Your task to perform on an android device: find snoozed emails in the gmail app Image 0: 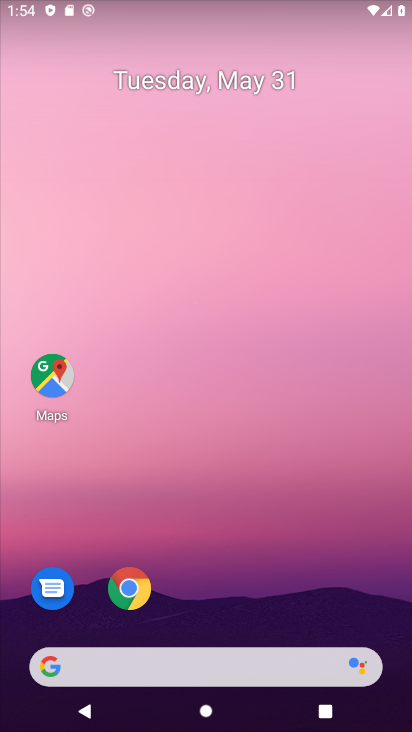
Step 0: drag from (139, 731) to (304, 84)
Your task to perform on an android device: find snoozed emails in the gmail app Image 1: 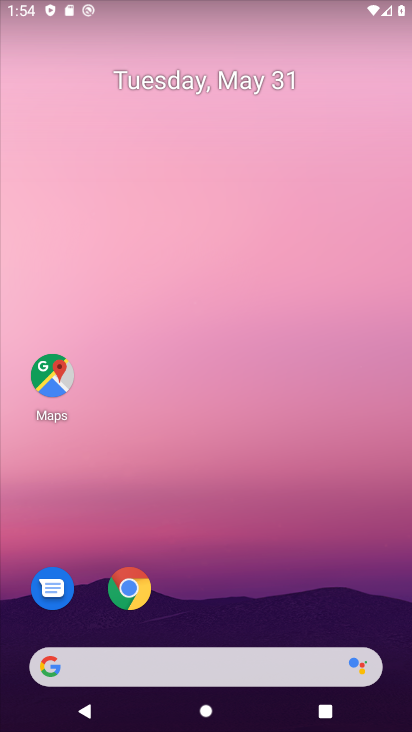
Step 1: drag from (156, 730) to (28, 27)
Your task to perform on an android device: find snoozed emails in the gmail app Image 2: 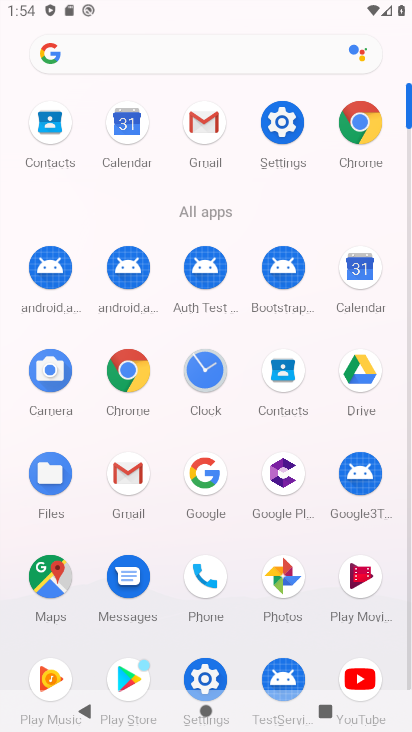
Step 2: click (139, 484)
Your task to perform on an android device: find snoozed emails in the gmail app Image 3: 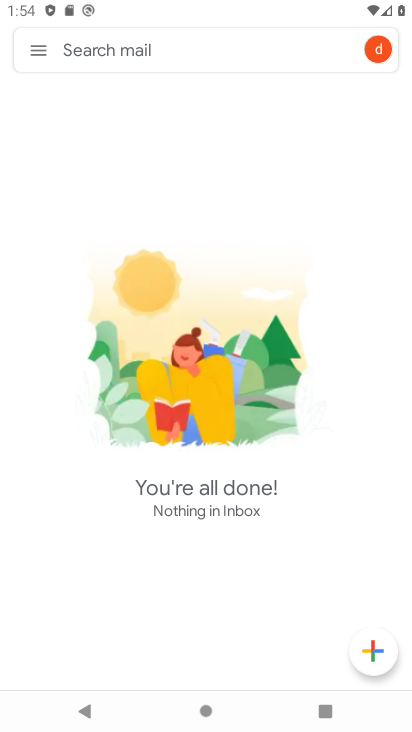
Step 3: click (42, 57)
Your task to perform on an android device: find snoozed emails in the gmail app Image 4: 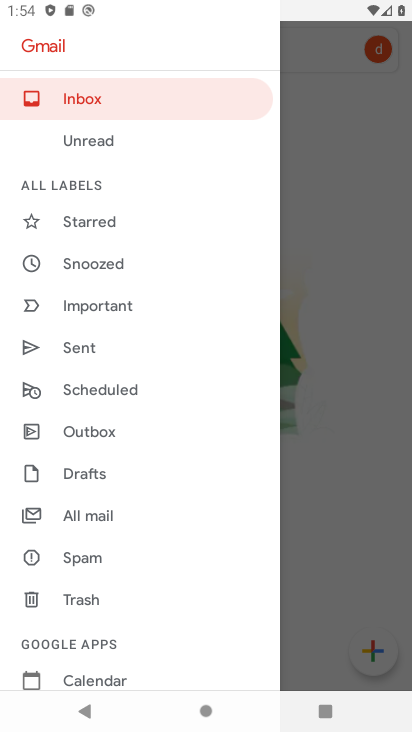
Step 4: click (93, 266)
Your task to perform on an android device: find snoozed emails in the gmail app Image 5: 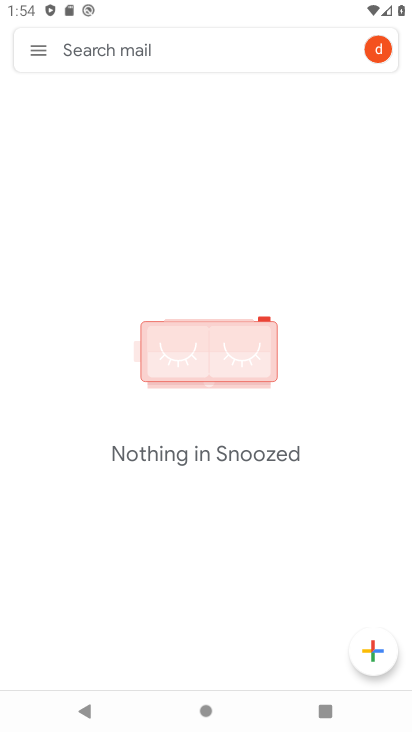
Step 5: task complete